Your task to perform on an android device: Open the phone app and click the voicemail tab. Image 0: 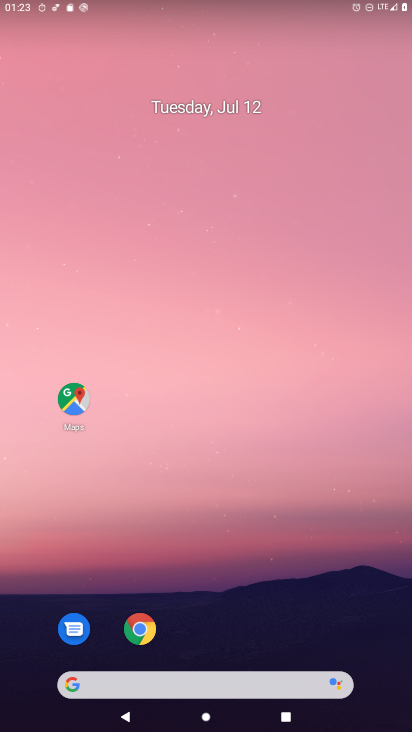
Step 0: drag from (25, 716) to (157, 74)
Your task to perform on an android device: Open the phone app and click the voicemail tab. Image 1: 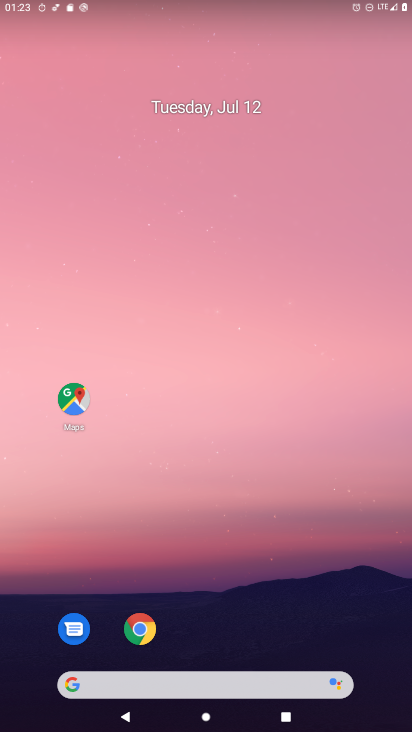
Step 1: drag from (34, 690) to (197, 18)
Your task to perform on an android device: Open the phone app and click the voicemail tab. Image 2: 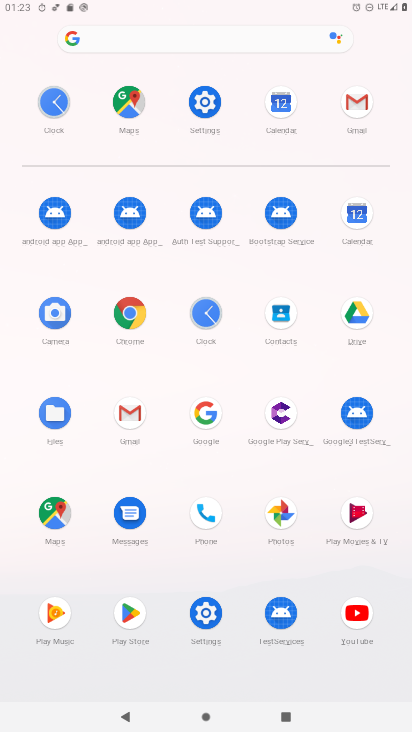
Step 2: click (205, 506)
Your task to perform on an android device: Open the phone app and click the voicemail tab. Image 3: 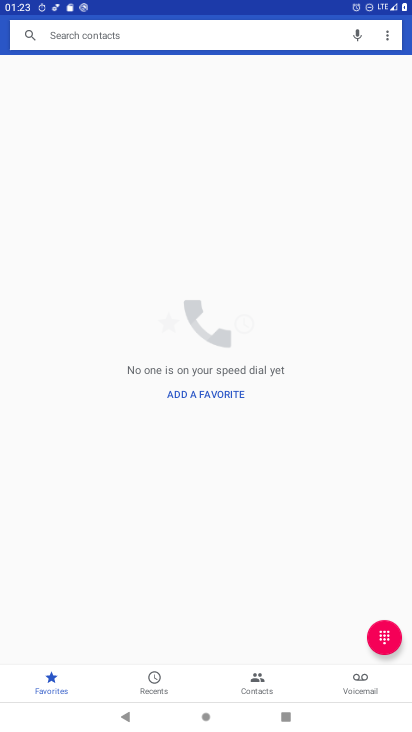
Step 3: click (342, 680)
Your task to perform on an android device: Open the phone app and click the voicemail tab. Image 4: 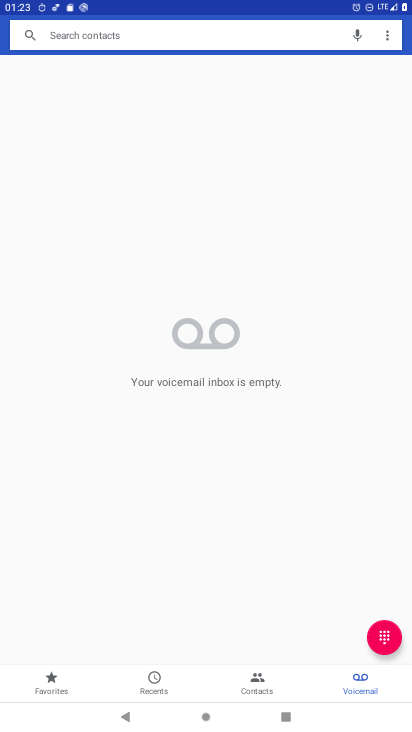
Step 4: task complete